Your task to perform on an android device: Look up the book "The Girl on the Train". Image 0: 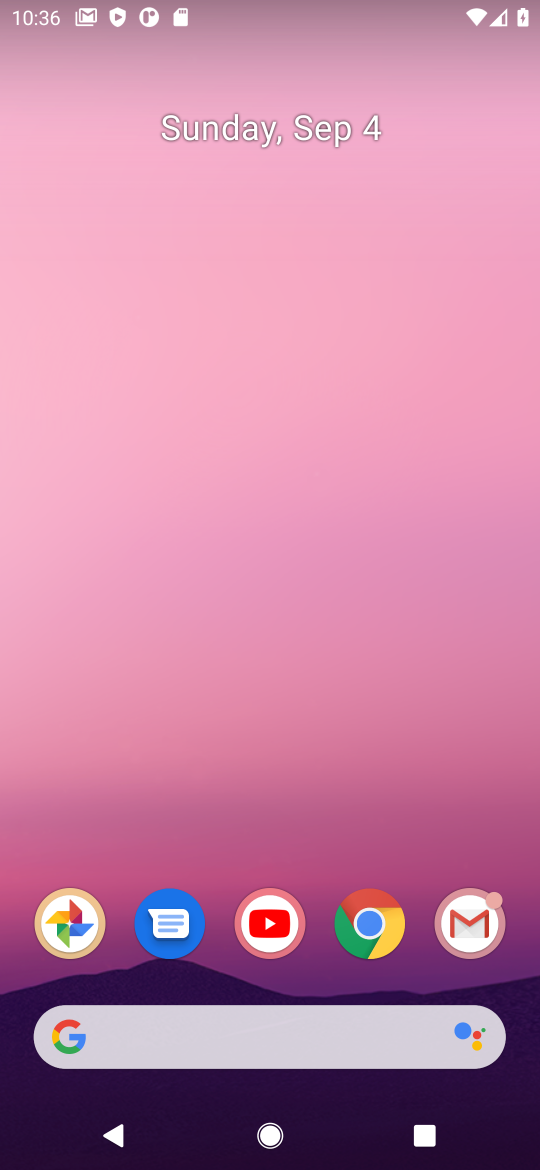
Step 0: click (364, 954)
Your task to perform on an android device: Look up the book "The Girl on the Train". Image 1: 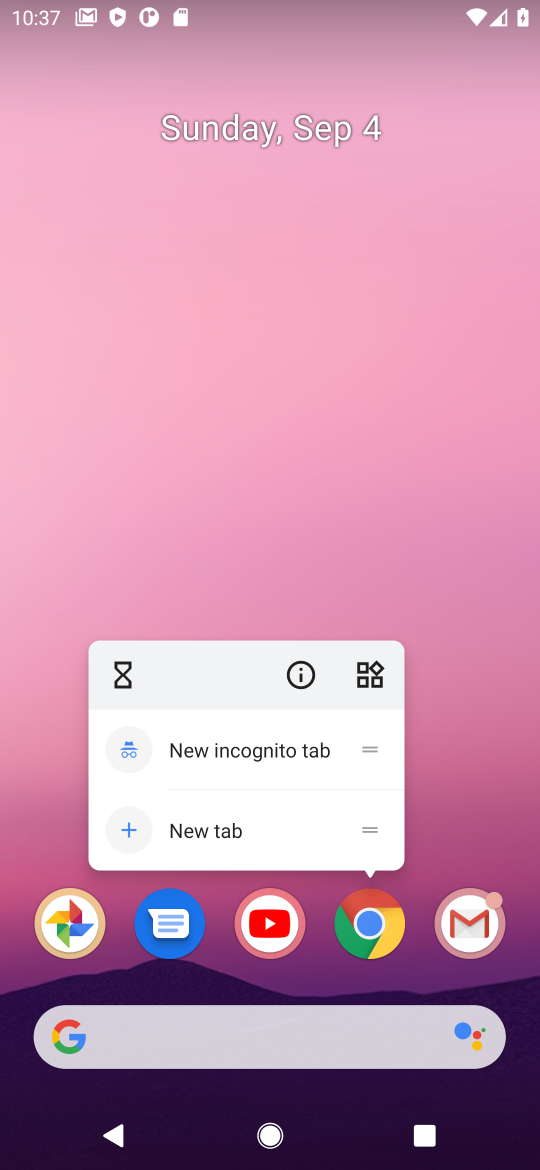
Step 1: click (386, 923)
Your task to perform on an android device: Look up the book "The Girl on the Train". Image 2: 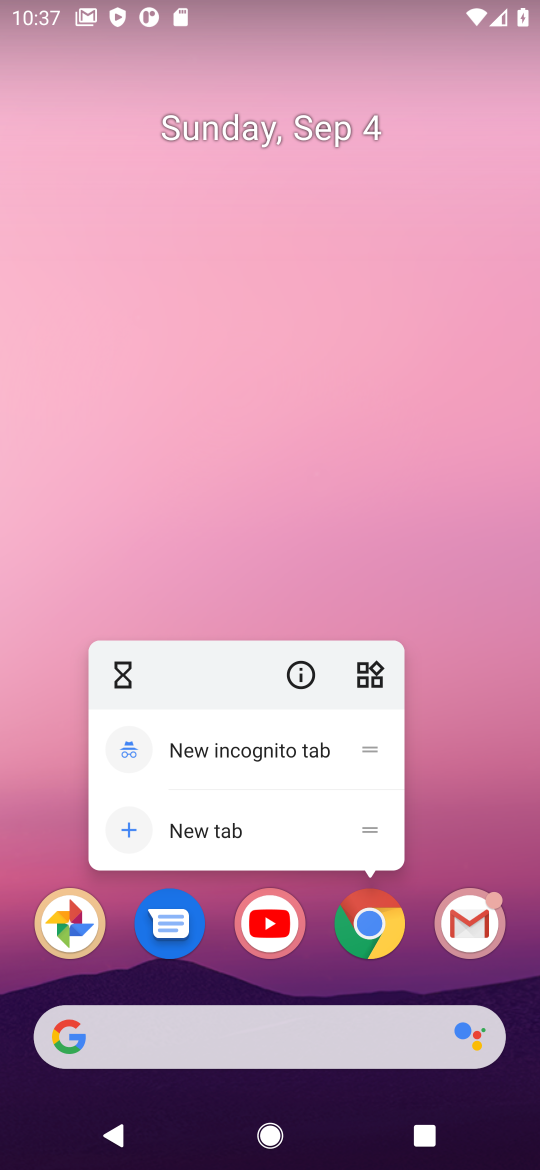
Step 2: click (378, 923)
Your task to perform on an android device: Look up the book "The Girl on the Train". Image 3: 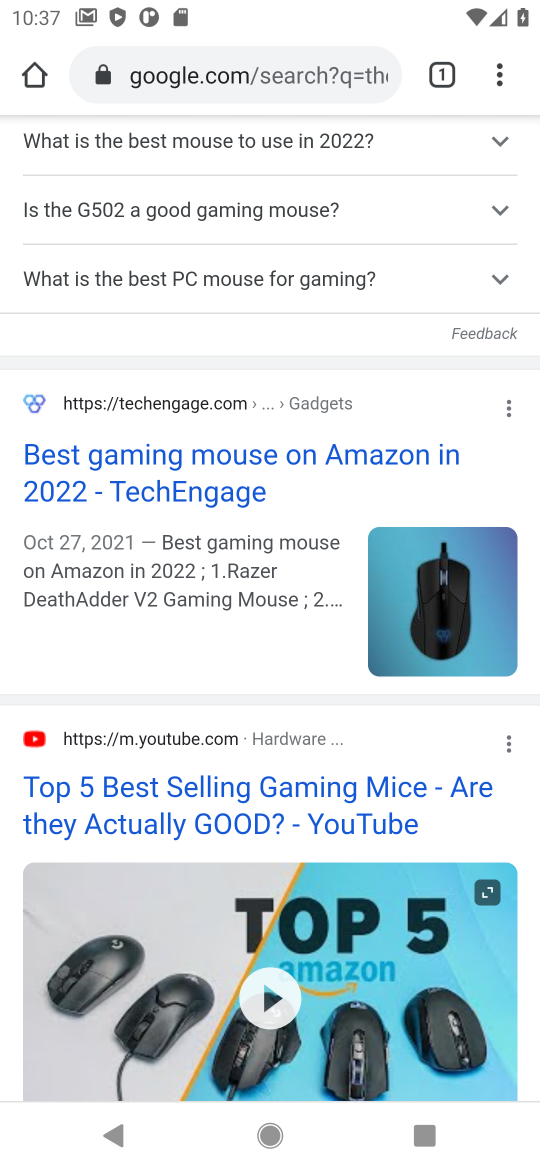
Step 3: task complete